Your task to perform on an android device: open chrome privacy settings Image 0: 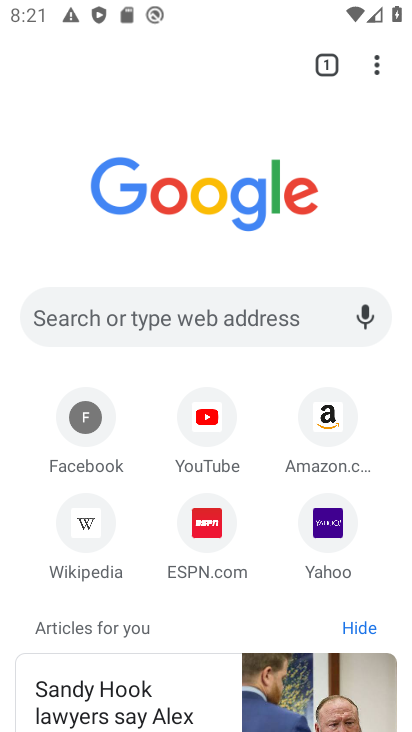
Step 0: press back button
Your task to perform on an android device: open chrome privacy settings Image 1: 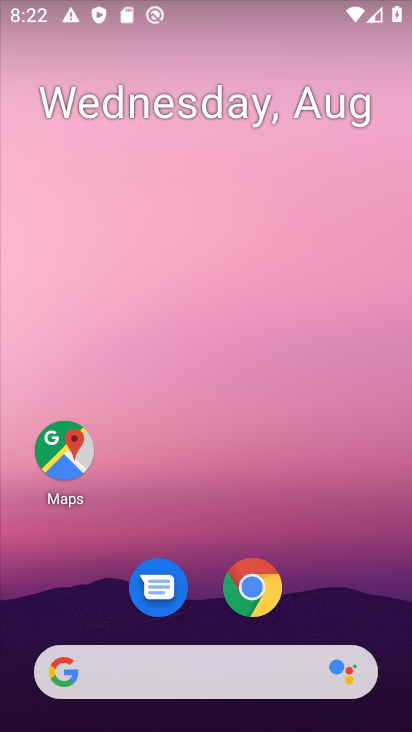
Step 1: drag from (284, 679) to (220, 49)
Your task to perform on an android device: open chrome privacy settings Image 2: 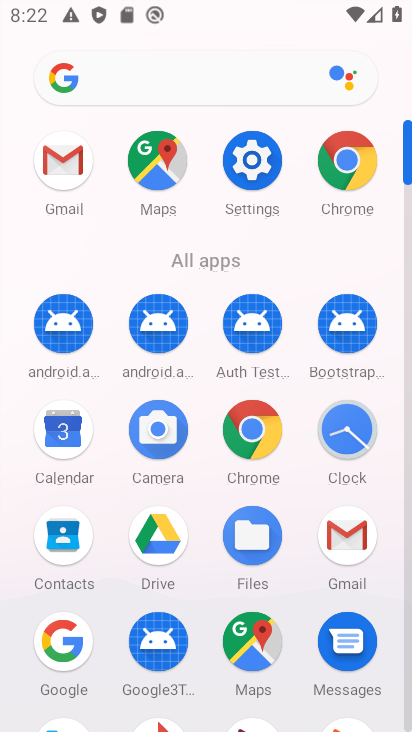
Step 2: click (238, 156)
Your task to perform on an android device: open chrome privacy settings Image 3: 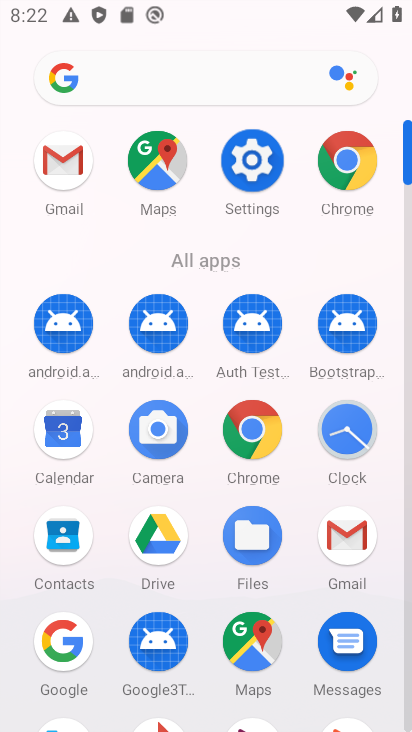
Step 3: click (242, 157)
Your task to perform on an android device: open chrome privacy settings Image 4: 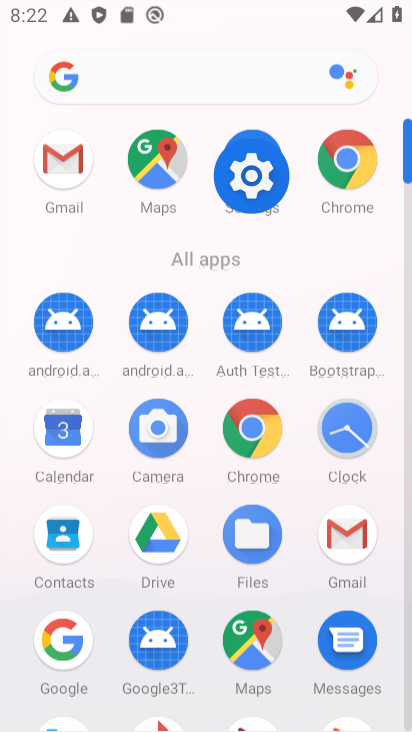
Step 4: click (242, 157)
Your task to perform on an android device: open chrome privacy settings Image 5: 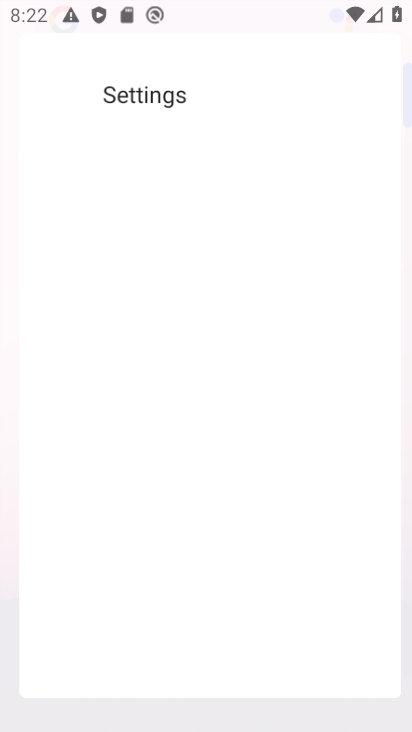
Step 5: click (242, 158)
Your task to perform on an android device: open chrome privacy settings Image 6: 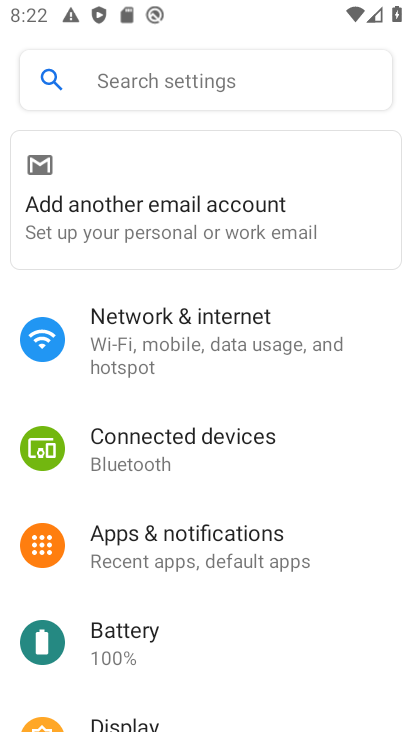
Step 6: press back button
Your task to perform on an android device: open chrome privacy settings Image 7: 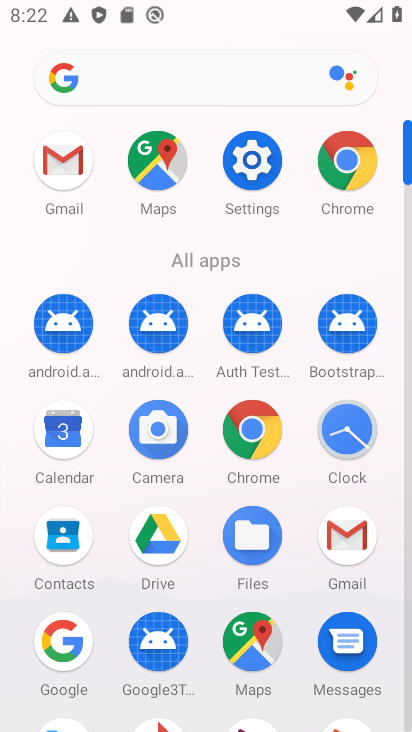
Step 7: click (350, 167)
Your task to perform on an android device: open chrome privacy settings Image 8: 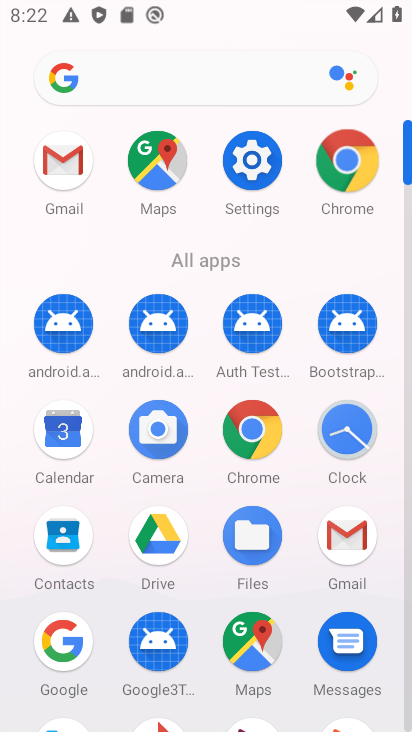
Step 8: click (349, 165)
Your task to perform on an android device: open chrome privacy settings Image 9: 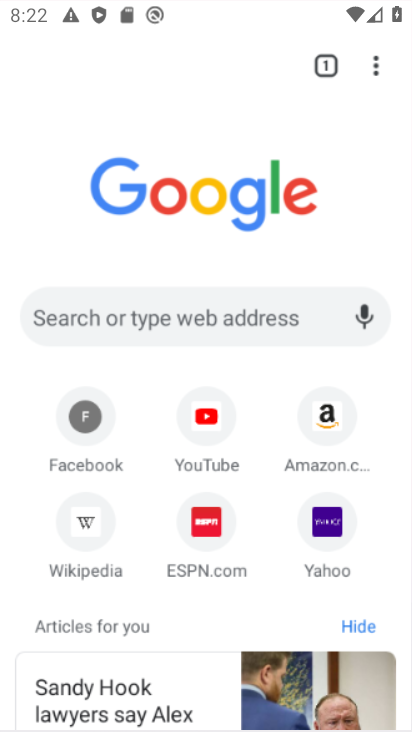
Step 9: click (346, 165)
Your task to perform on an android device: open chrome privacy settings Image 10: 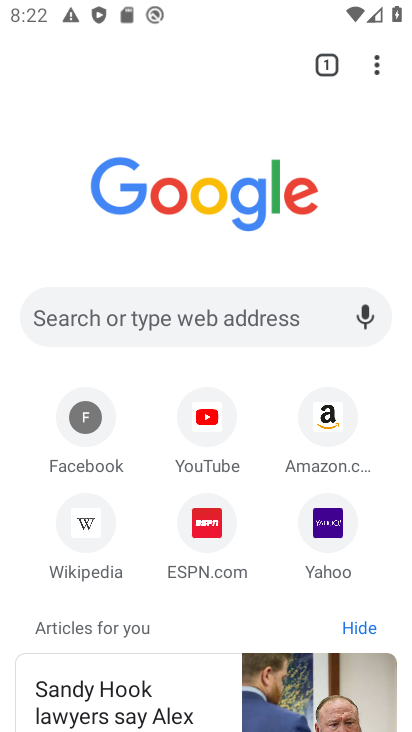
Step 10: drag from (376, 60) to (144, 545)
Your task to perform on an android device: open chrome privacy settings Image 11: 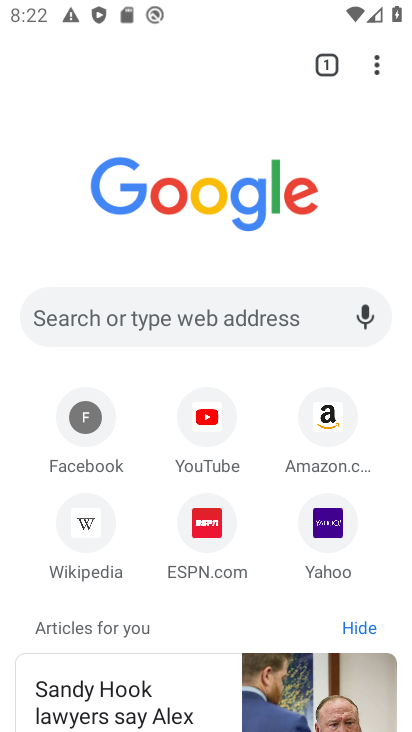
Step 11: click (143, 544)
Your task to perform on an android device: open chrome privacy settings Image 12: 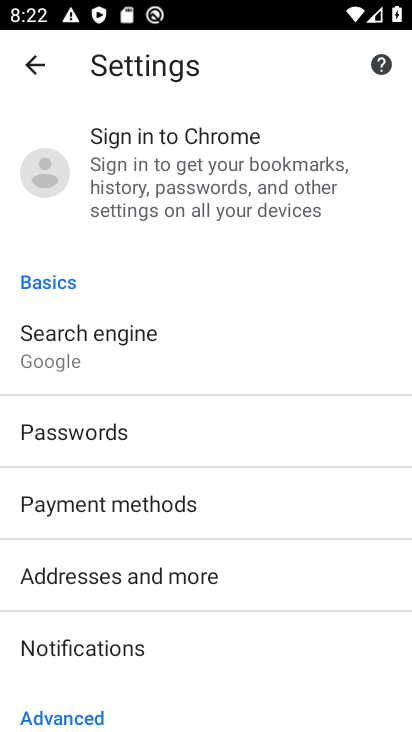
Step 12: drag from (110, 557) to (97, 212)
Your task to perform on an android device: open chrome privacy settings Image 13: 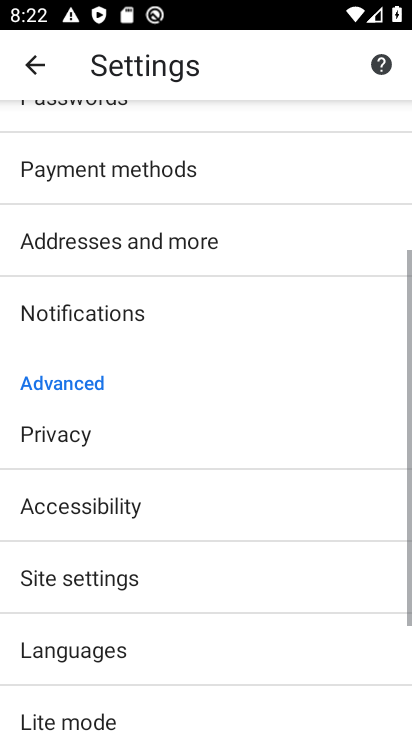
Step 13: drag from (156, 475) to (109, 136)
Your task to perform on an android device: open chrome privacy settings Image 14: 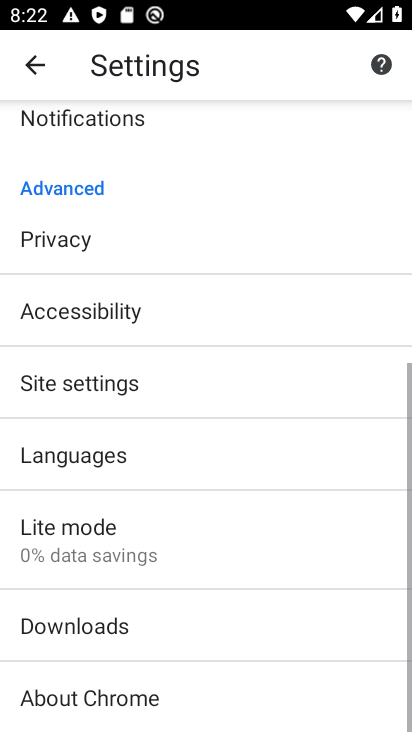
Step 14: drag from (143, 421) to (143, 225)
Your task to perform on an android device: open chrome privacy settings Image 15: 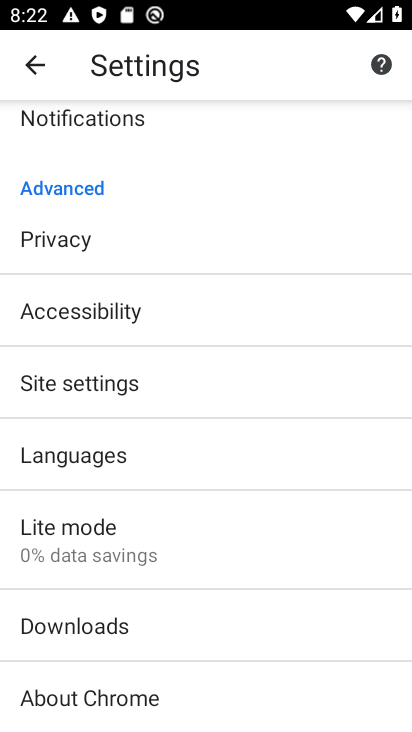
Step 15: click (48, 231)
Your task to perform on an android device: open chrome privacy settings Image 16: 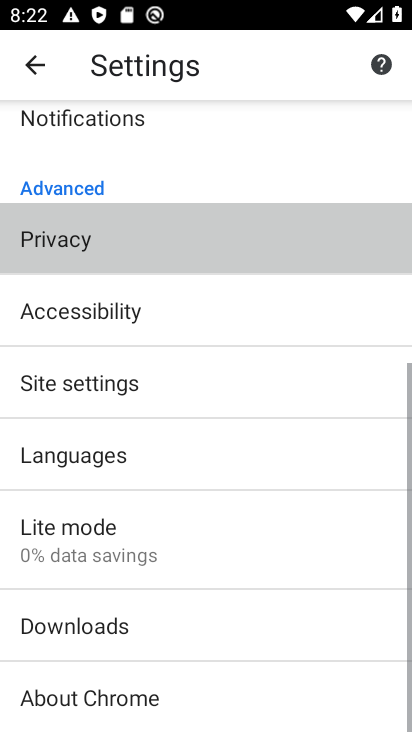
Step 16: click (48, 231)
Your task to perform on an android device: open chrome privacy settings Image 17: 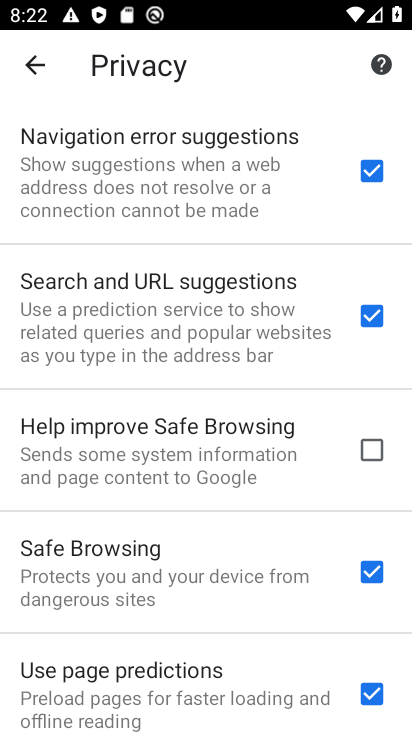
Step 17: task complete